Your task to perform on an android device: turn vacation reply on in the gmail app Image 0: 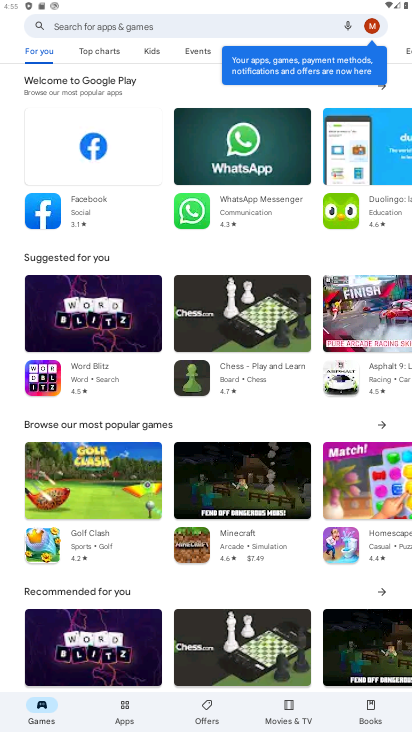
Step 0: press home button
Your task to perform on an android device: turn vacation reply on in the gmail app Image 1: 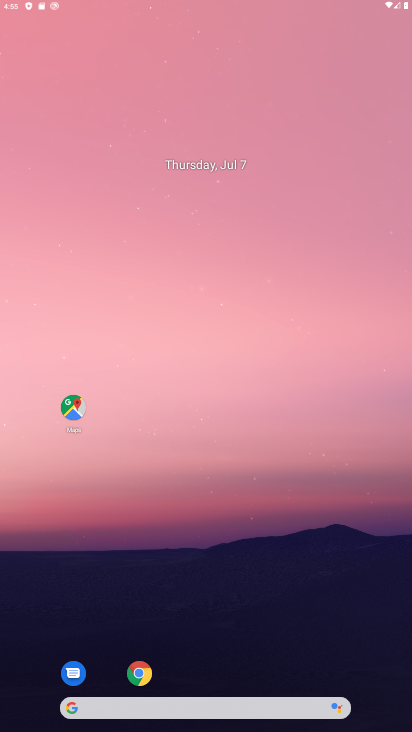
Step 1: drag from (362, 698) to (379, 122)
Your task to perform on an android device: turn vacation reply on in the gmail app Image 2: 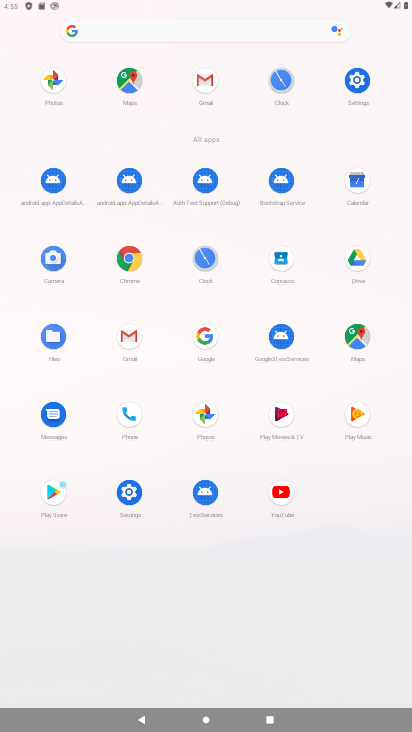
Step 2: click (132, 338)
Your task to perform on an android device: turn vacation reply on in the gmail app Image 3: 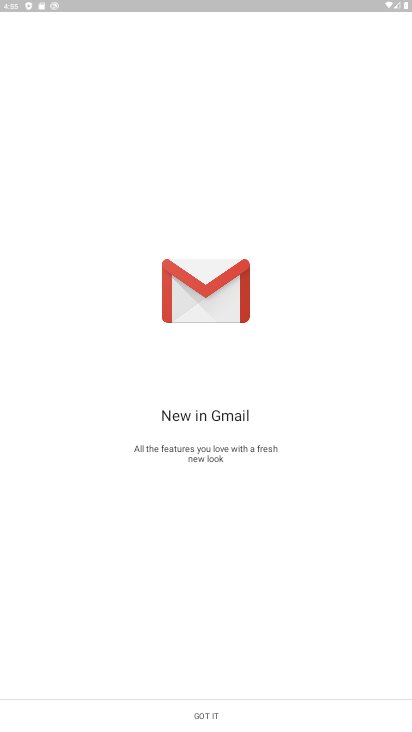
Step 3: click (215, 710)
Your task to perform on an android device: turn vacation reply on in the gmail app Image 4: 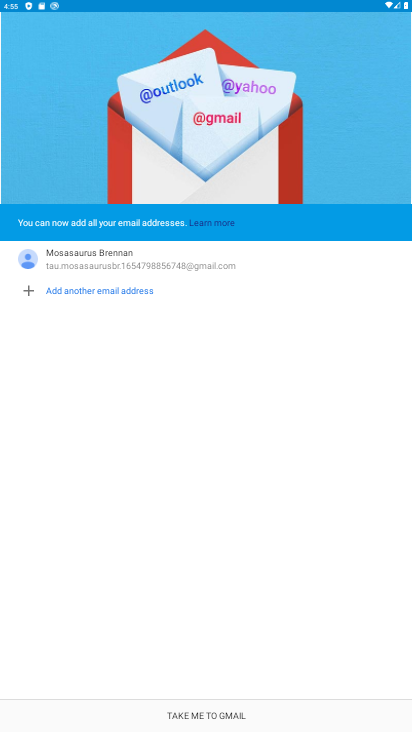
Step 4: click (211, 716)
Your task to perform on an android device: turn vacation reply on in the gmail app Image 5: 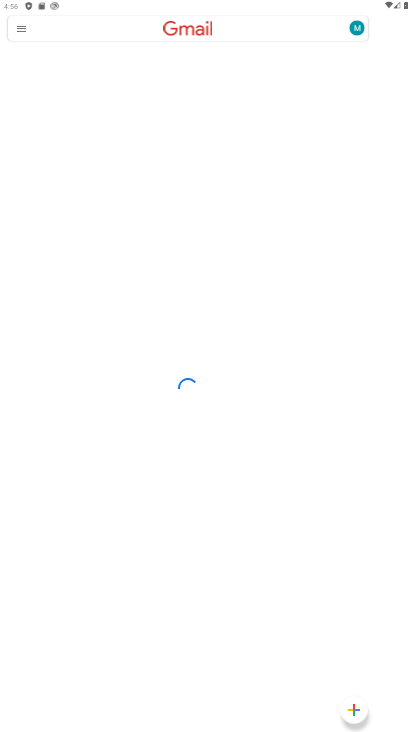
Step 5: click (17, 33)
Your task to perform on an android device: turn vacation reply on in the gmail app Image 6: 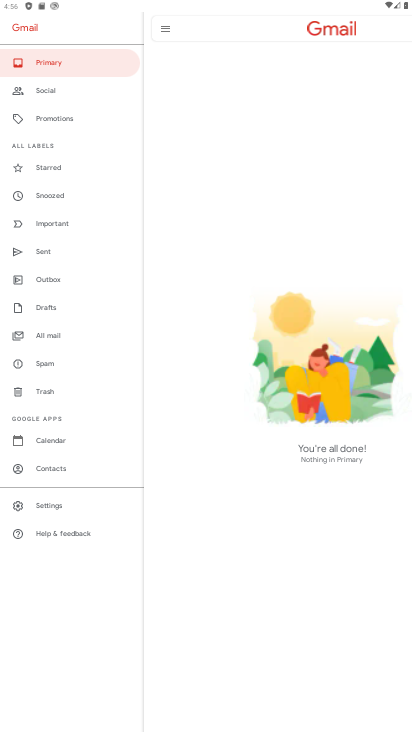
Step 6: click (56, 141)
Your task to perform on an android device: turn vacation reply on in the gmail app Image 7: 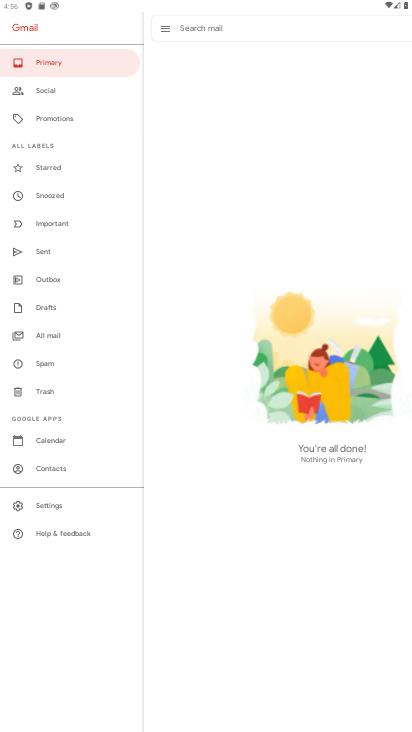
Step 7: click (52, 513)
Your task to perform on an android device: turn vacation reply on in the gmail app Image 8: 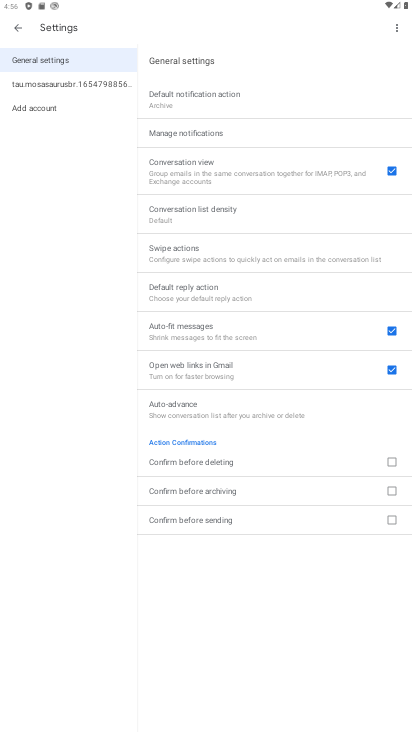
Step 8: click (127, 85)
Your task to perform on an android device: turn vacation reply on in the gmail app Image 9: 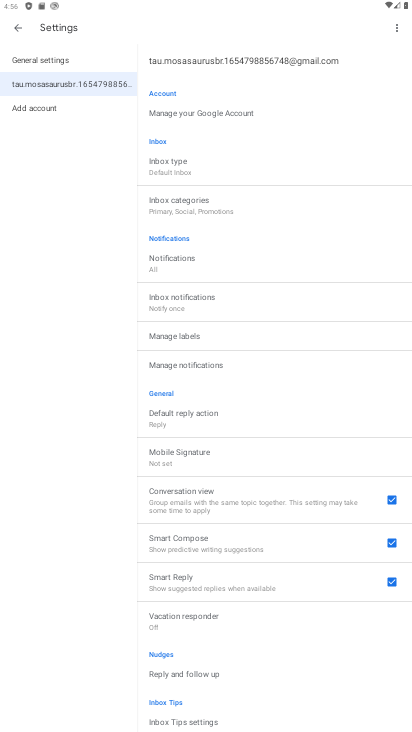
Step 9: click (229, 620)
Your task to perform on an android device: turn vacation reply on in the gmail app Image 10: 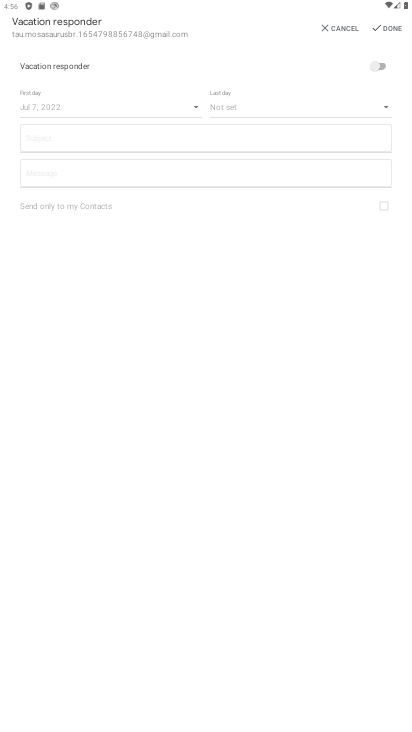
Step 10: click (383, 21)
Your task to perform on an android device: turn vacation reply on in the gmail app Image 11: 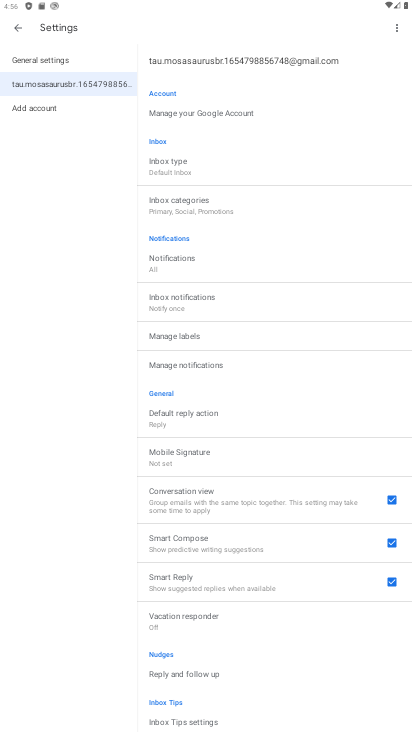
Step 11: task complete